Your task to perform on an android device: toggle notifications settings in the gmail app Image 0: 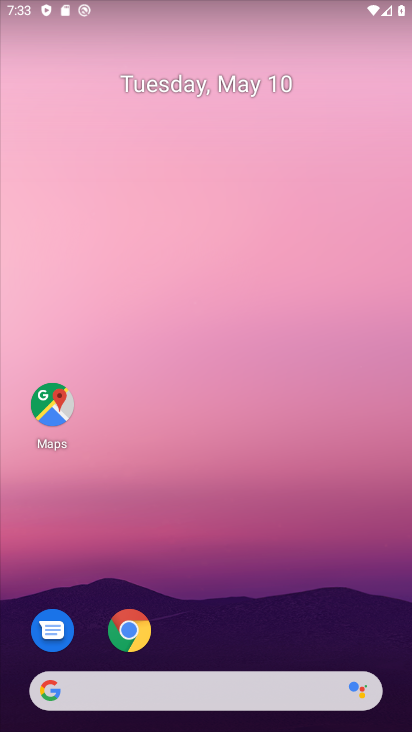
Step 0: drag from (204, 722) to (135, 217)
Your task to perform on an android device: toggle notifications settings in the gmail app Image 1: 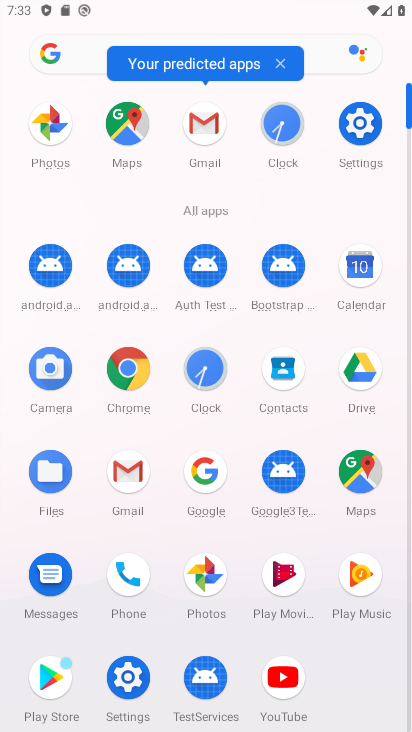
Step 1: click (202, 129)
Your task to perform on an android device: toggle notifications settings in the gmail app Image 2: 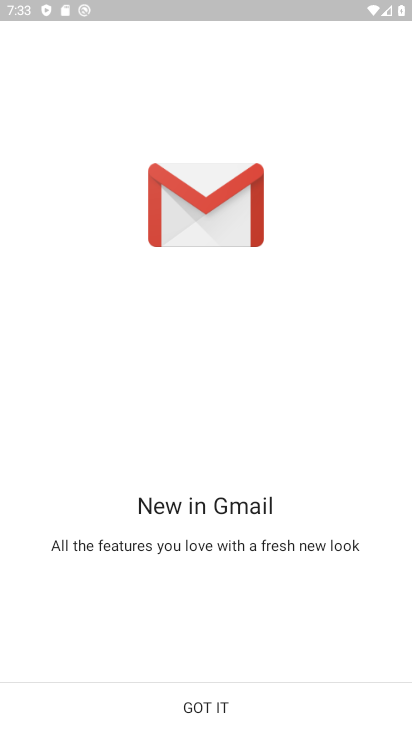
Step 2: press back button
Your task to perform on an android device: toggle notifications settings in the gmail app Image 3: 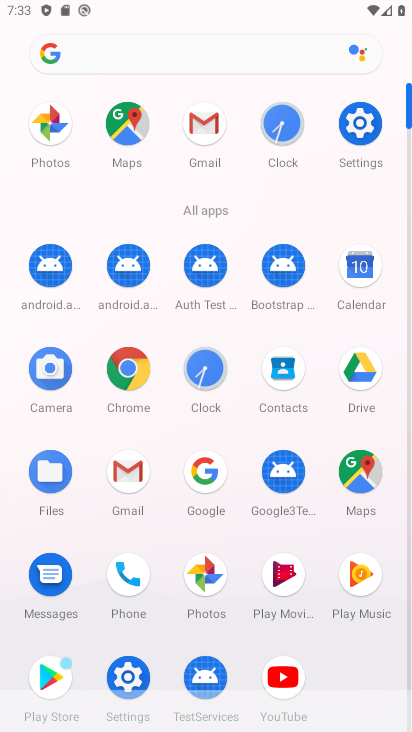
Step 3: click (191, 123)
Your task to perform on an android device: toggle notifications settings in the gmail app Image 4: 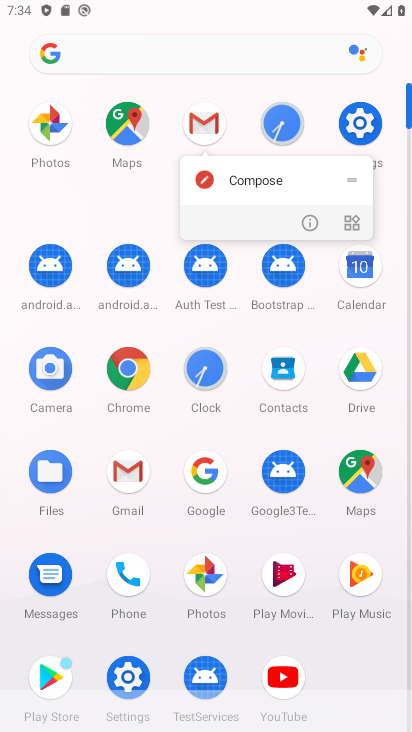
Step 4: click (313, 222)
Your task to perform on an android device: toggle notifications settings in the gmail app Image 5: 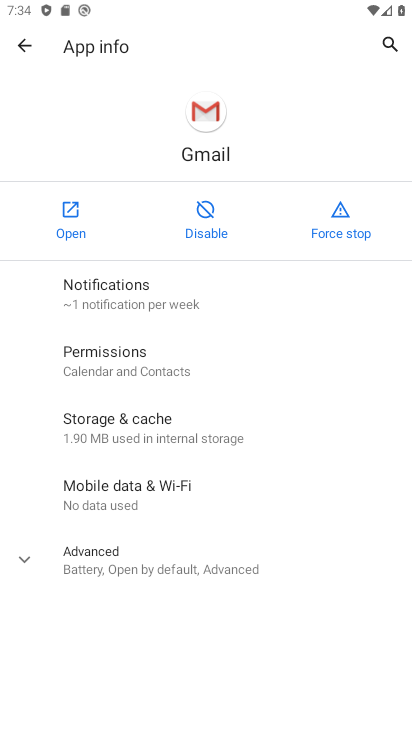
Step 5: click (177, 302)
Your task to perform on an android device: toggle notifications settings in the gmail app Image 6: 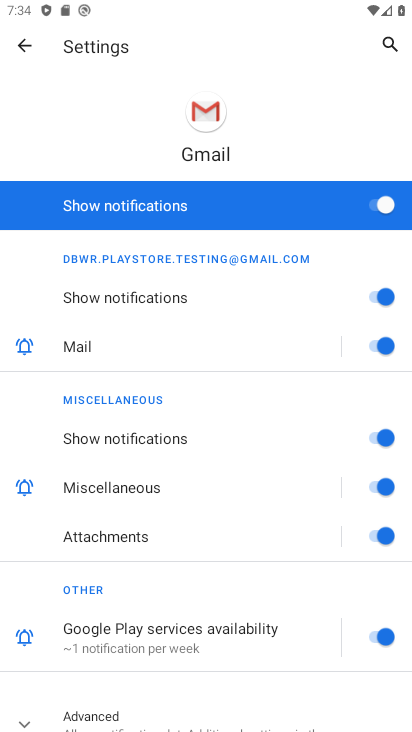
Step 6: click (390, 211)
Your task to perform on an android device: toggle notifications settings in the gmail app Image 7: 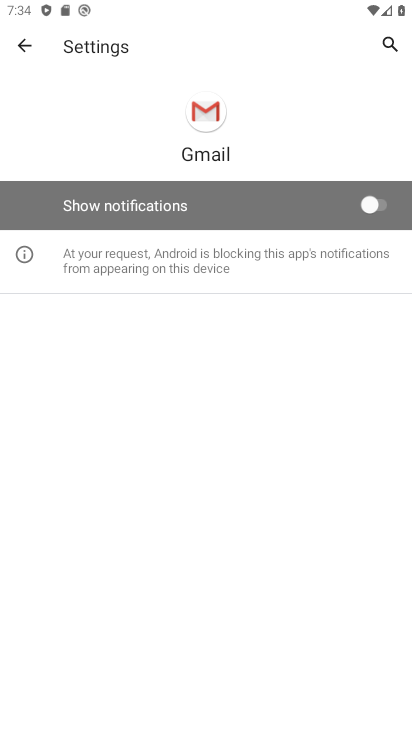
Step 7: task complete